Your task to perform on an android device: Open Youtube and go to the subscriptions tab Image 0: 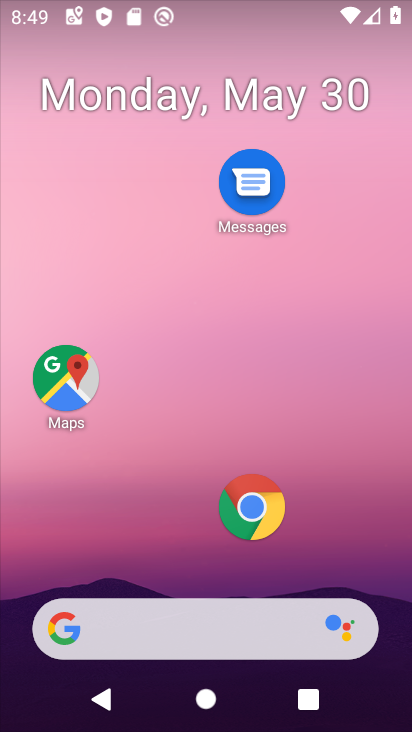
Step 0: drag from (170, 528) to (122, 102)
Your task to perform on an android device: Open Youtube and go to the subscriptions tab Image 1: 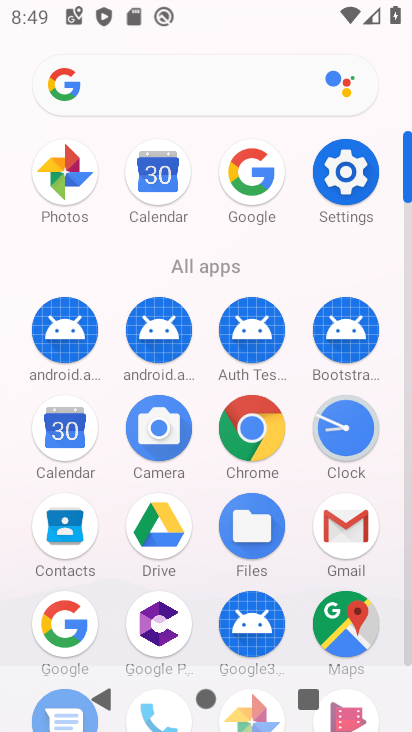
Step 1: drag from (248, 657) to (213, 350)
Your task to perform on an android device: Open Youtube and go to the subscriptions tab Image 2: 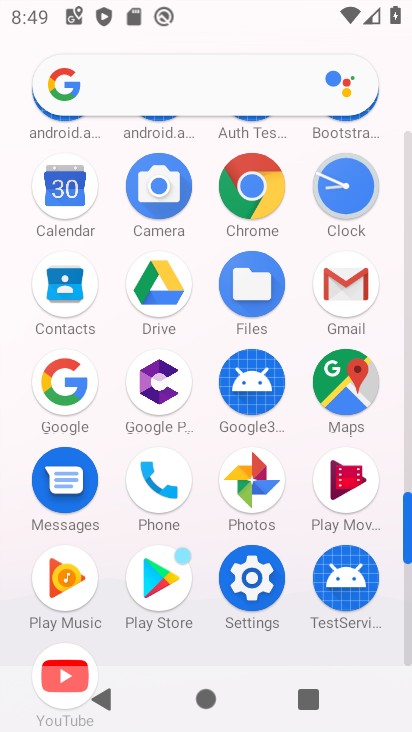
Step 2: drag from (102, 616) to (125, 371)
Your task to perform on an android device: Open Youtube and go to the subscriptions tab Image 3: 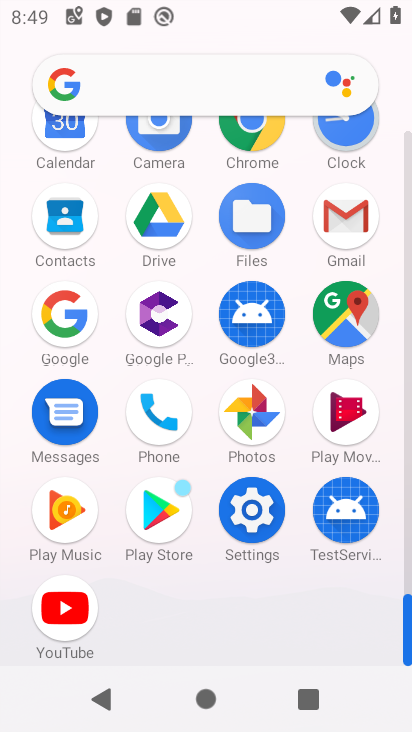
Step 3: click (70, 615)
Your task to perform on an android device: Open Youtube and go to the subscriptions tab Image 4: 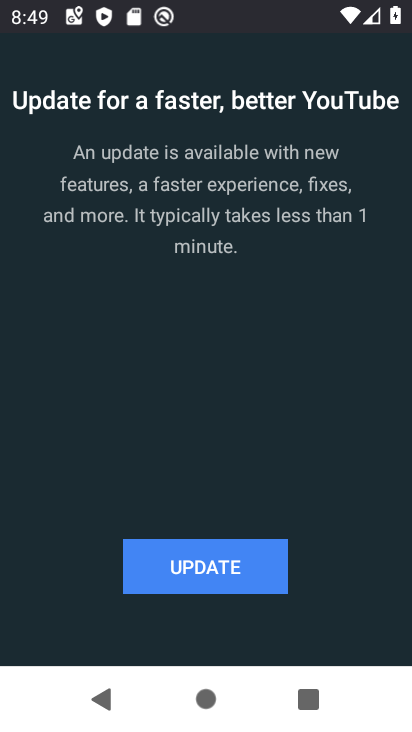
Step 4: click (172, 566)
Your task to perform on an android device: Open Youtube and go to the subscriptions tab Image 5: 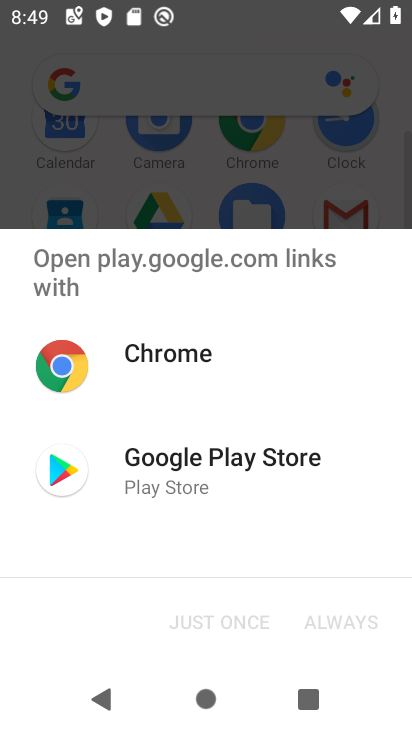
Step 5: click (195, 473)
Your task to perform on an android device: Open Youtube and go to the subscriptions tab Image 6: 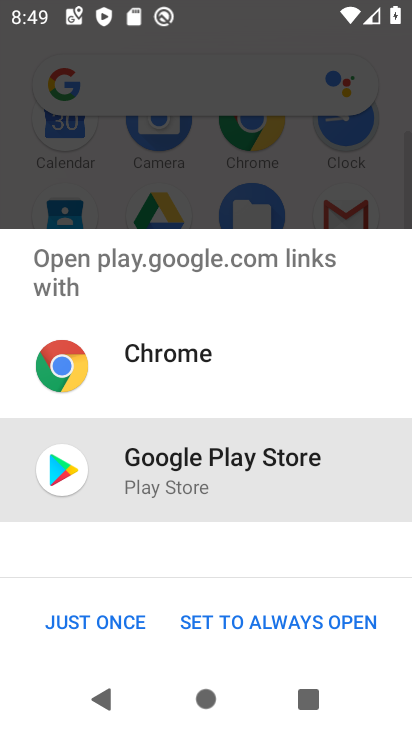
Step 6: click (310, 627)
Your task to perform on an android device: Open Youtube and go to the subscriptions tab Image 7: 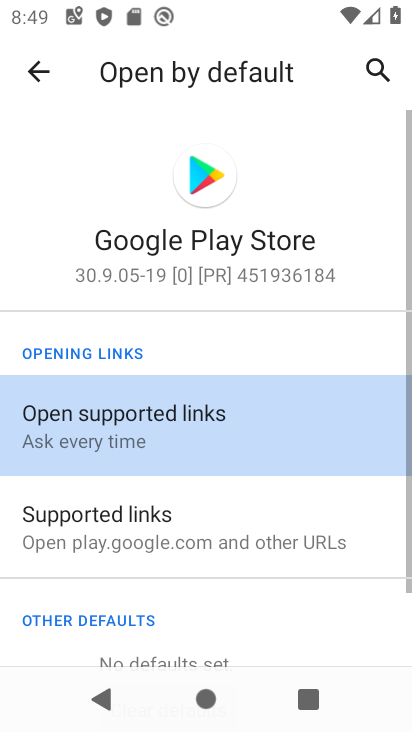
Step 7: click (179, 427)
Your task to perform on an android device: Open Youtube and go to the subscriptions tab Image 8: 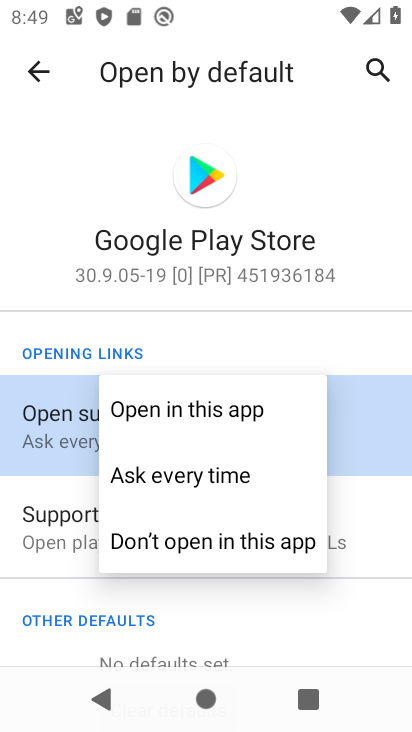
Step 8: click (148, 417)
Your task to perform on an android device: Open Youtube and go to the subscriptions tab Image 9: 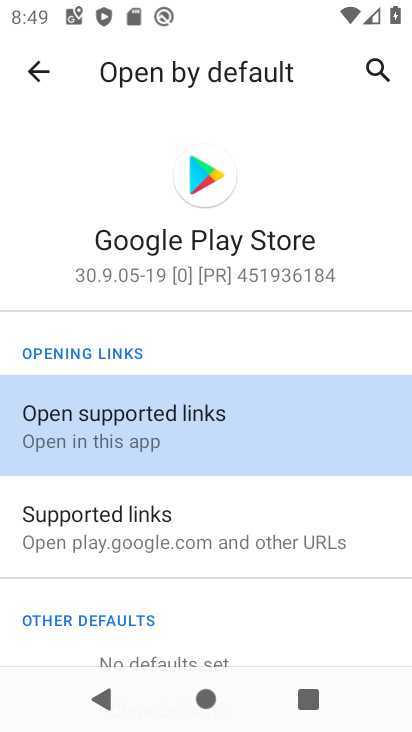
Step 9: click (32, 69)
Your task to perform on an android device: Open Youtube and go to the subscriptions tab Image 10: 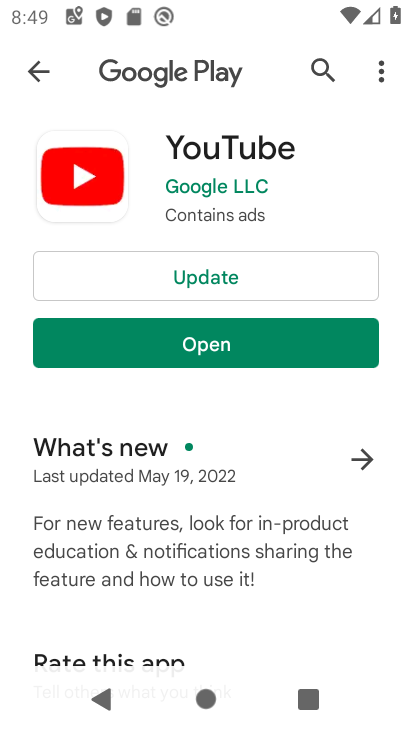
Step 10: click (214, 272)
Your task to perform on an android device: Open Youtube and go to the subscriptions tab Image 11: 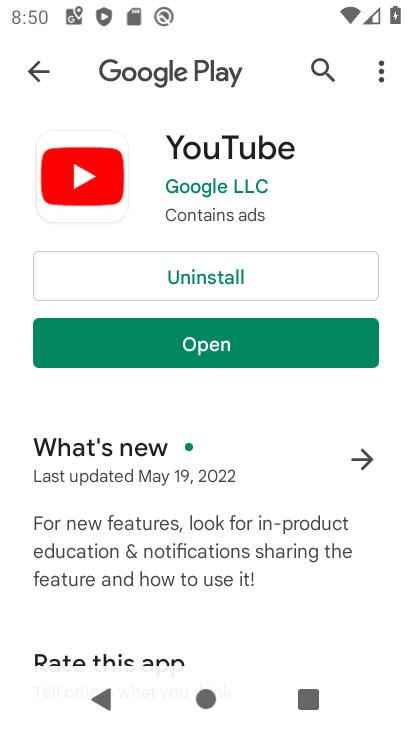
Step 11: click (211, 358)
Your task to perform on an android device: Open Youtube and go to the subscriptions tab Image 12: 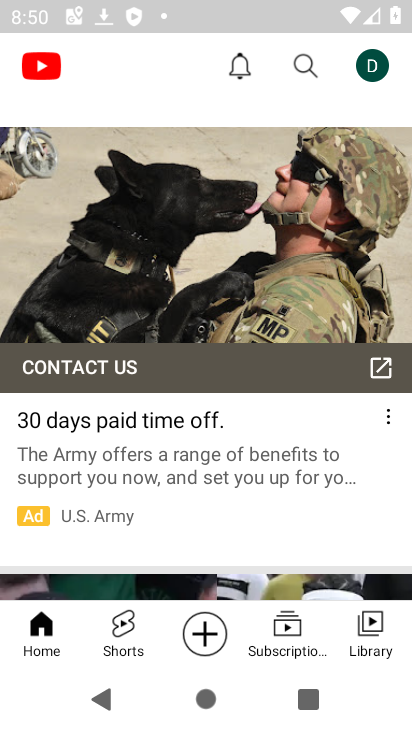
Step 12: click (289, 630)
Your task to perform on an android device: Open Youtube and go to the subscriptions tab Image 13: 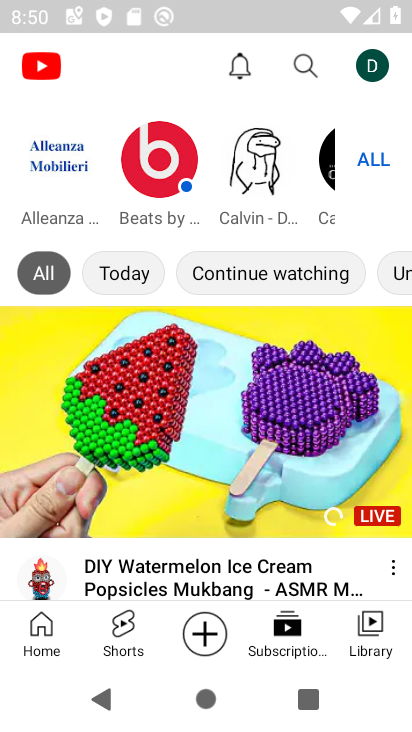
Step 13: task complete